Your task to perform on an android device: Go to sound settings Image 0: 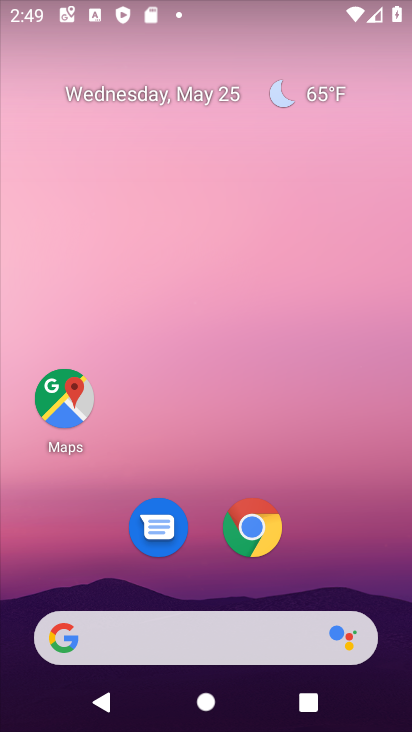
Step 0: drag from (188, 599) to (244, 34)
Your task to perform on an android device: Go to sound settings Image 1: 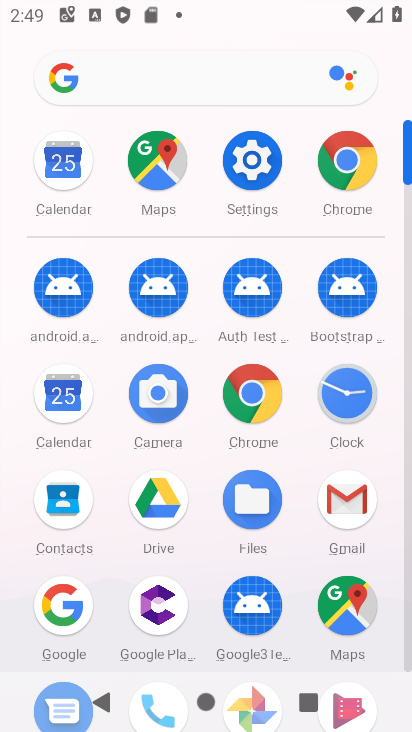
Step 1: click (267, 170)
Your task to perform on an android device: Go to sound settings Image 2: 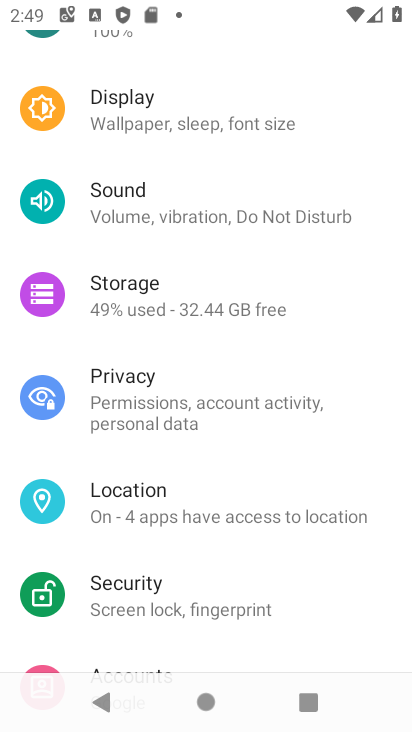
Step 2: drag from (361, 296) to (348, 668)
Your task to perform on an android device: Go to sound settings Image 3: 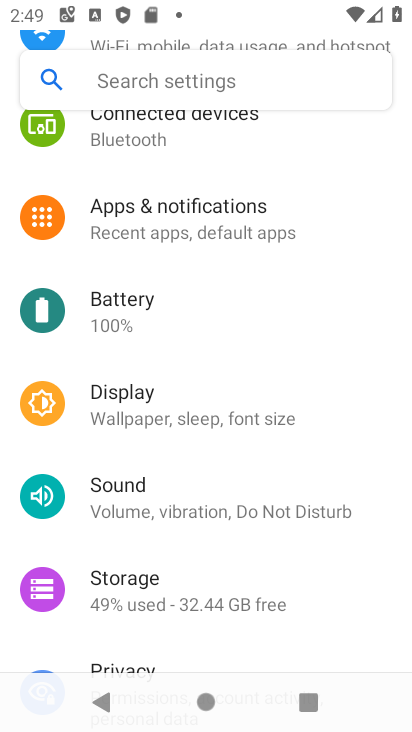
Step 3: drag from (234, 341) to (219, 541)
Your task to perform on an android device: Go to sound settings Image 4: 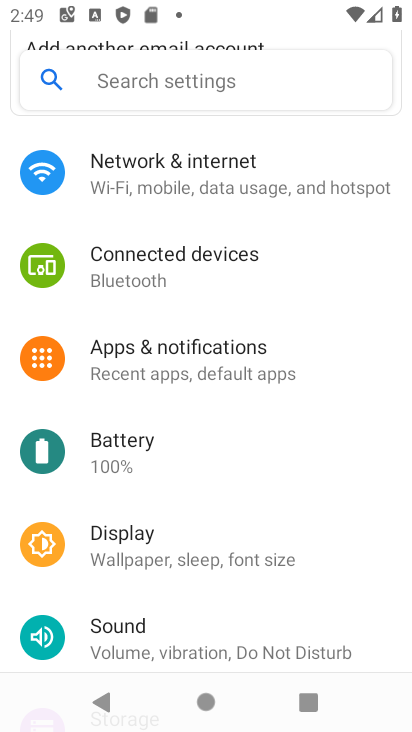
Step 4: click (169, 637)
Your task to perform on an android device: Go to sound settings Image 5: 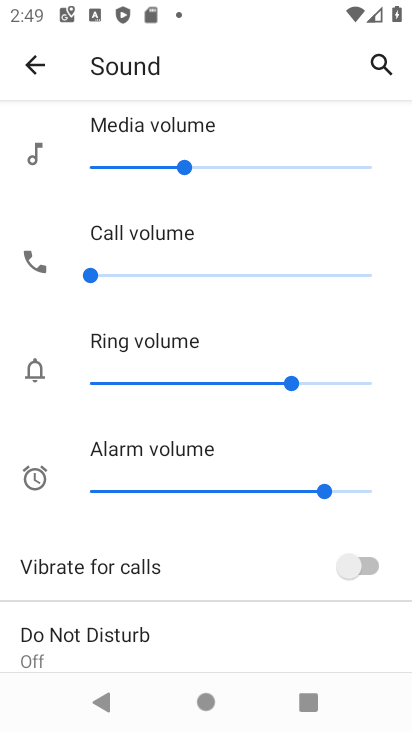
Step 5: task complete